Your task to perform on an android device: change alarm snooze length Image 0: 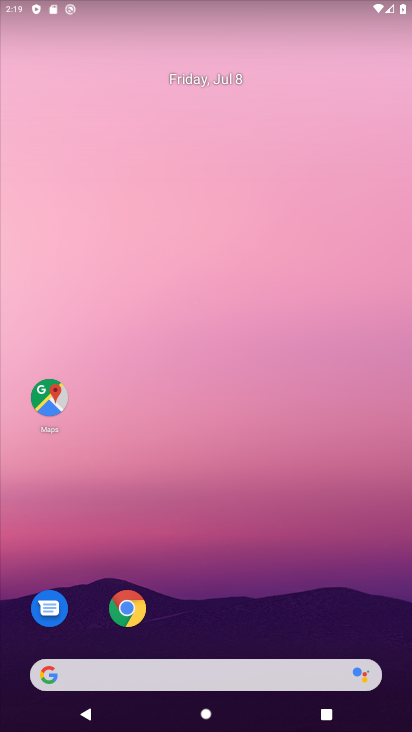
Step 0: drag from (224, 637) to (392, 80)
Your task to perform on an android device: change alarm snooze length Image 1: 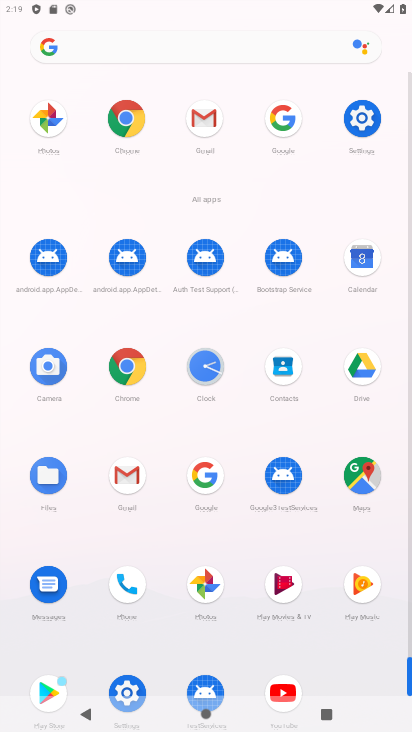
Step 1: click (230, 365)
Your task to perform on an android device: change alarm snooze length Image 2: 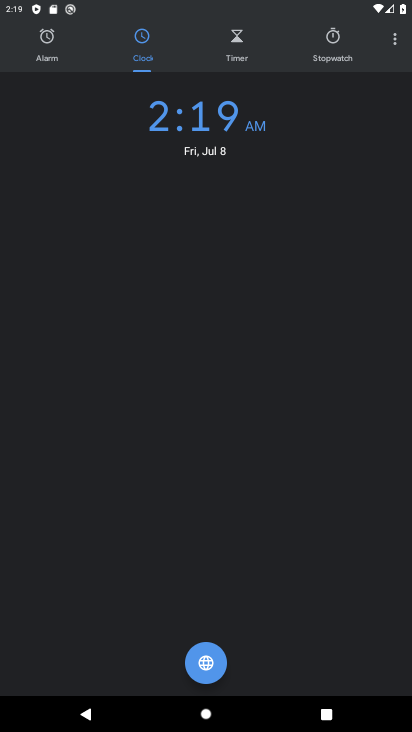
Step 2: click (395, 55)
Your task to perform on an android device: change alarm snooze length Image 3: 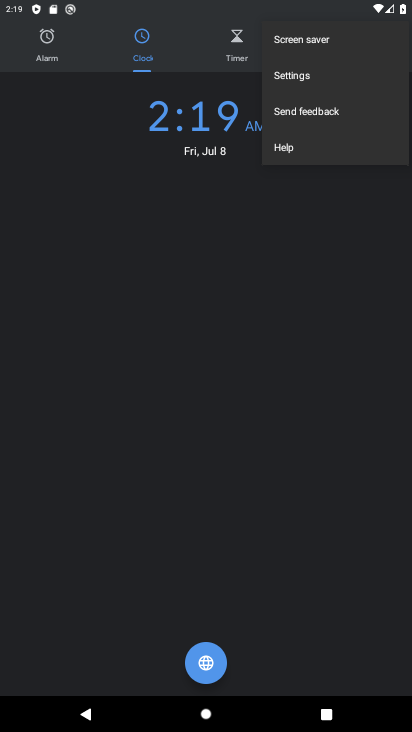
Step 3: click (362, 84)
Your task to perform on an android device: change alarm snooze length Image 4: 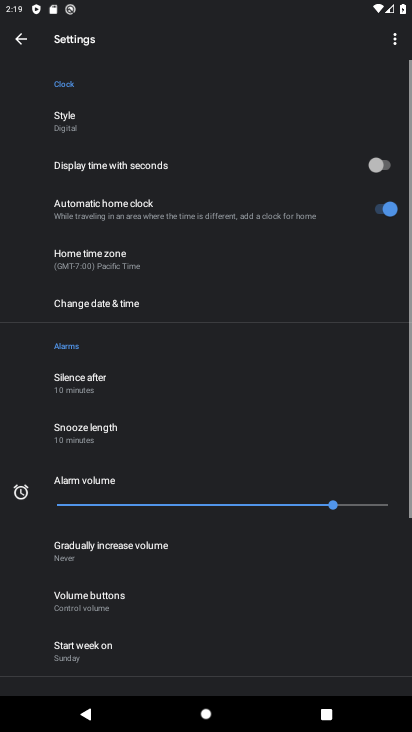
Step 4: drag from (140, 542) to (201, 241)
Your task to perform on an android device: change alarm snooze length Image 5: 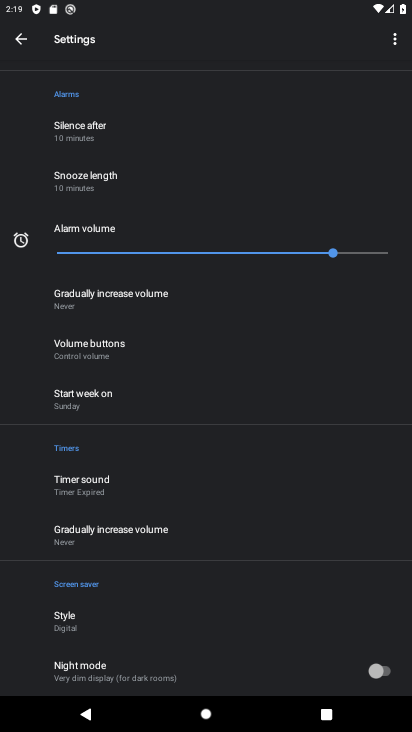
Step 5: click (200, 189)
Your task to perform on an android device: change alarm snooze length Image 6: 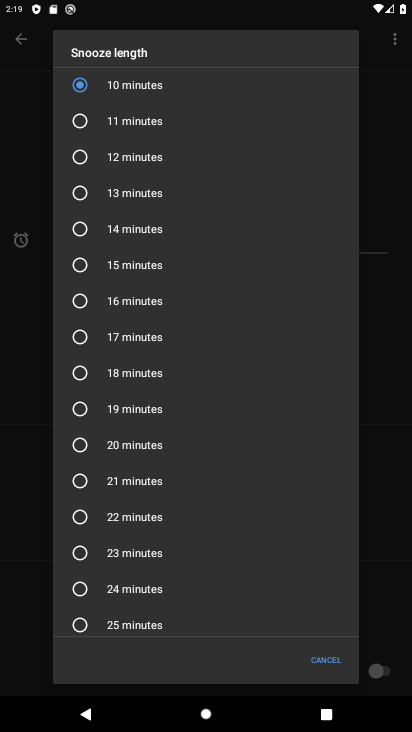
Step 6: click (98, 614)
Your task to perform on an android device: change alarm snooze length Image 7: 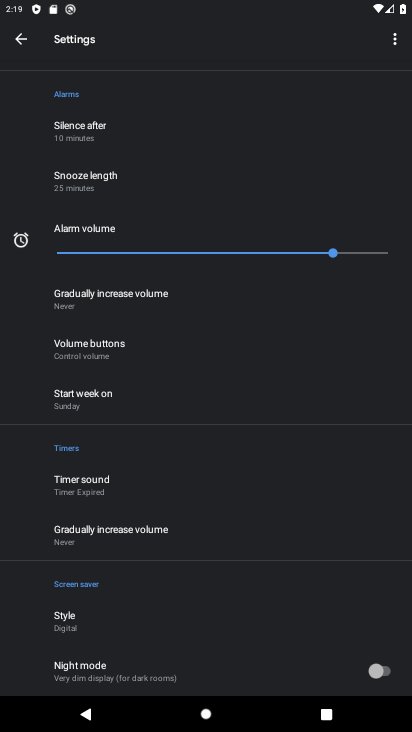
Step 7: task complete